Your task to perform on an android device: turn on location history Image 0: 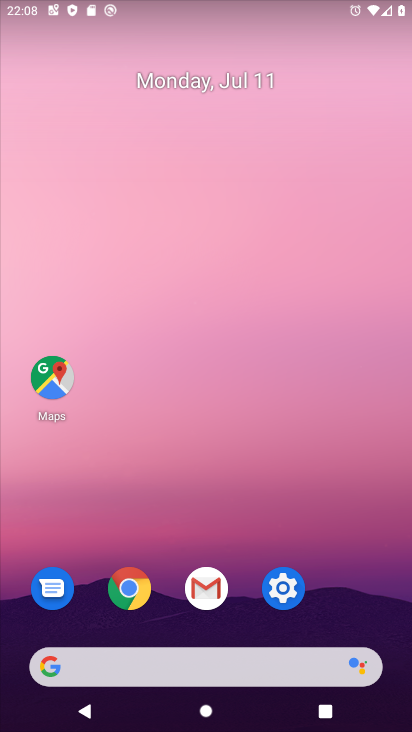
Step 0: click (288, 588)
Your task to perform on an android device: turn on location history Image 1: 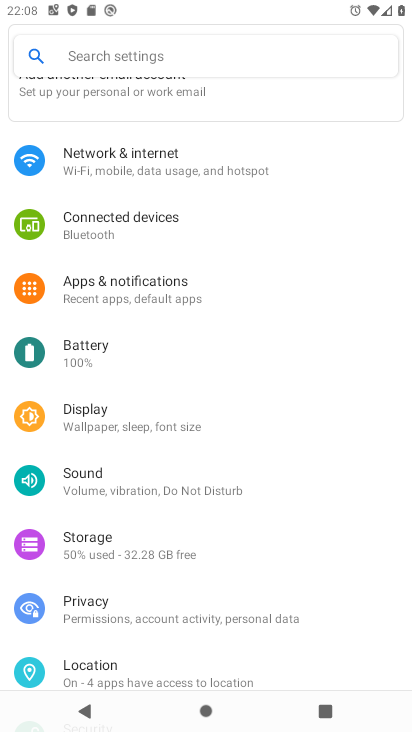
Step 1: click (176, 63)
Your task to perform on an android device: turn on location history Image 2: 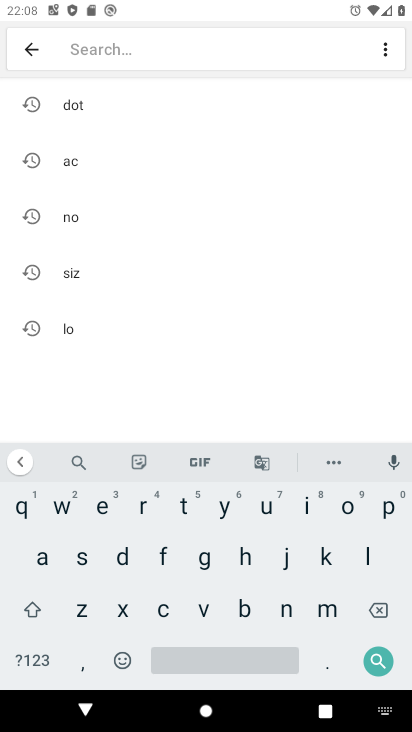
Step 2: click (105, 332)
Your task to perform on an android device: turn on location history Image 3: 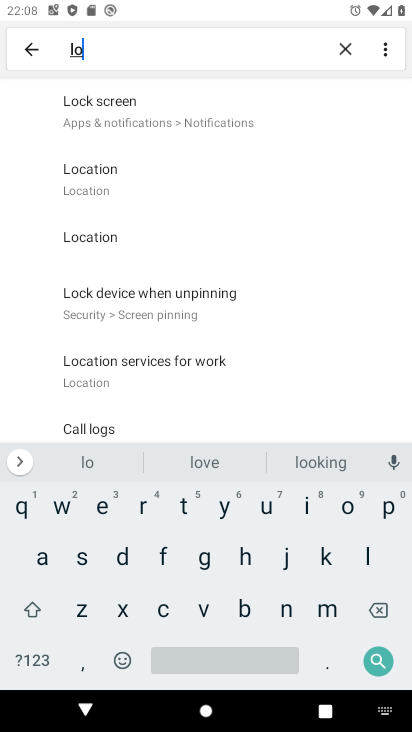
Step 3: click (102, 184)
Your task to perform on an android device: turn on location history Image 4: 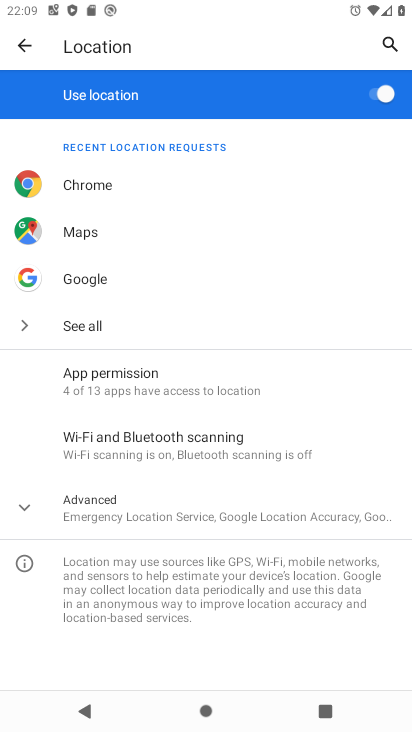
Step 4: click (95, 507)
Your task to perform on an android device: turn on location history Image 5: 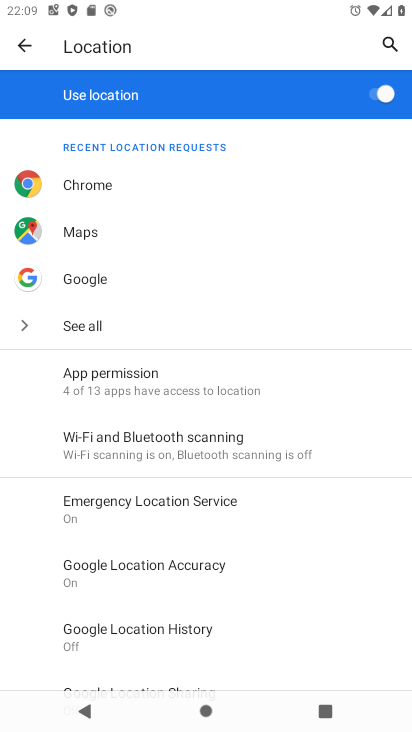
Step 5: click (142, 622)
Your task to perform on an android device: turn on location history Image 6: 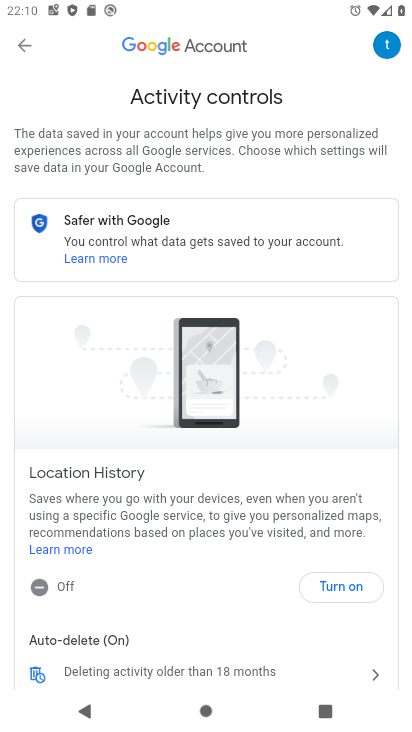
Step 6: task complete